Your task to perform on an android device: clear all cookies in the chrome app Image 0: 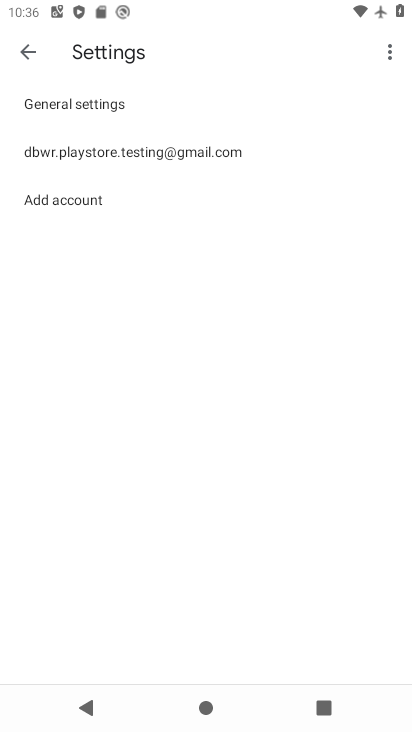
Step 0: press home button
Your task to perform on an android device: clear all cookies in the chrome app Image 1: 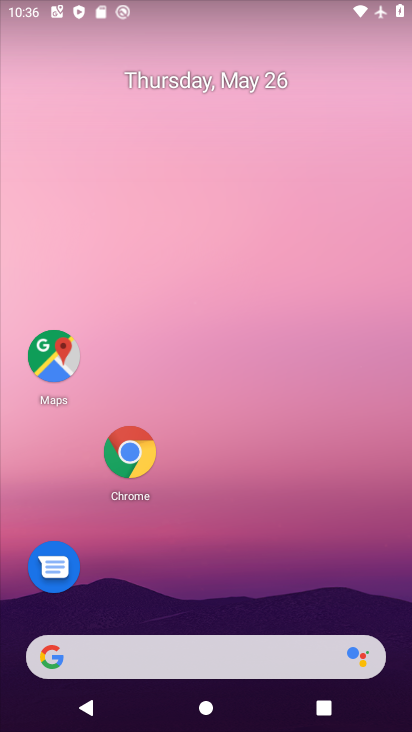
Step 1: click (123, 456)
Your task to perform on an android device: clear all cookies in the chrome app Image 2: 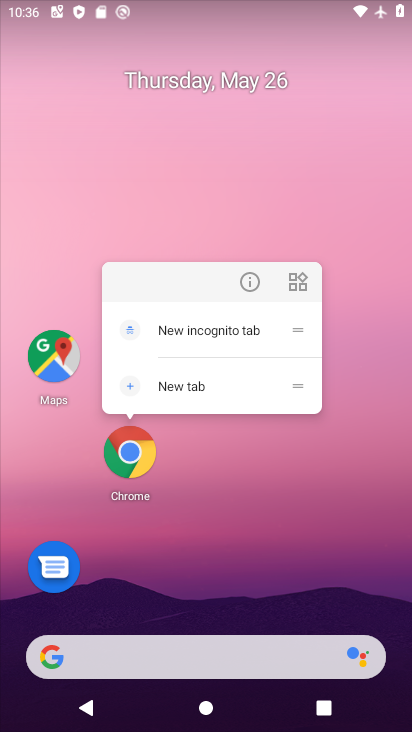
Step 2: click (144, 460)
Your task to perform on an android device: clear all cookies in the chrome app Image 3: 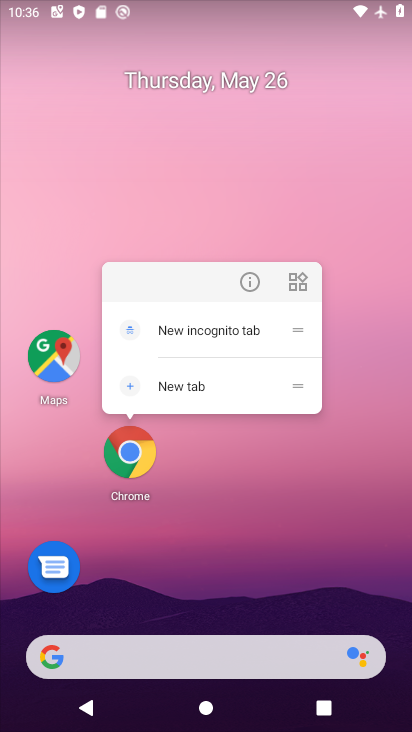
Step 3: click (132, 466)
Your task to perform on an android device: clear all cookies in the chrome app Image 4: 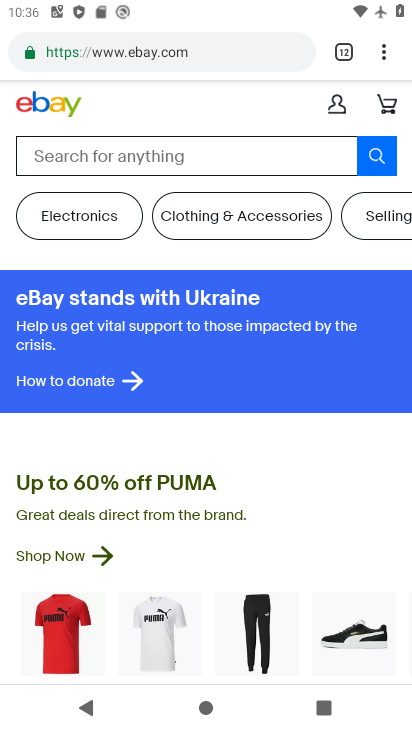
Step 4: drag from (381, 54) to (250, 606)
Your task to perform on an android device: clear all cookies in the chrome app Image 5: 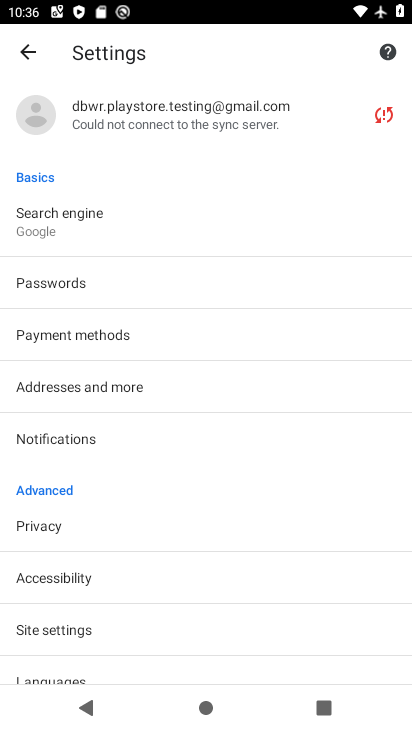
Step 5: click (47, 530)
Your task to perform on an android device: clear all cookies in the chrome app Image 6: 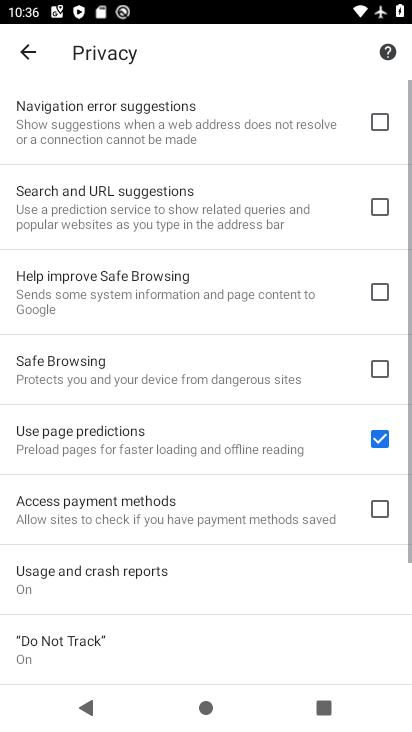
Step 6: drag from (200, 626) to (346, 174)
Your task to perform on an android device: clear all cookies in the chrome app Image 7: 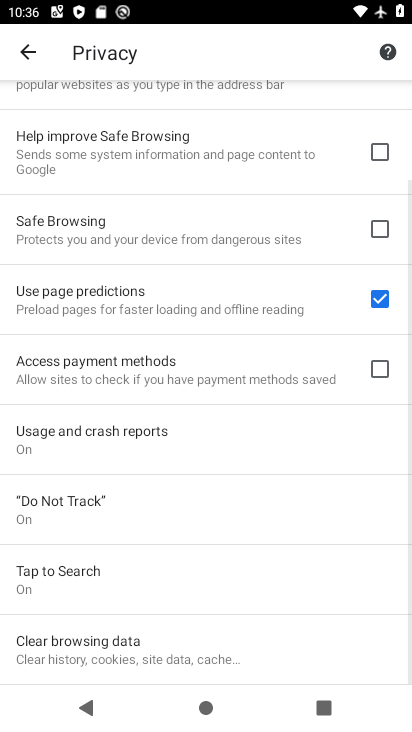
Step 7: click (151, 660)
Your task to perform on an android device: clear all cookies in the chrome app Image 8: 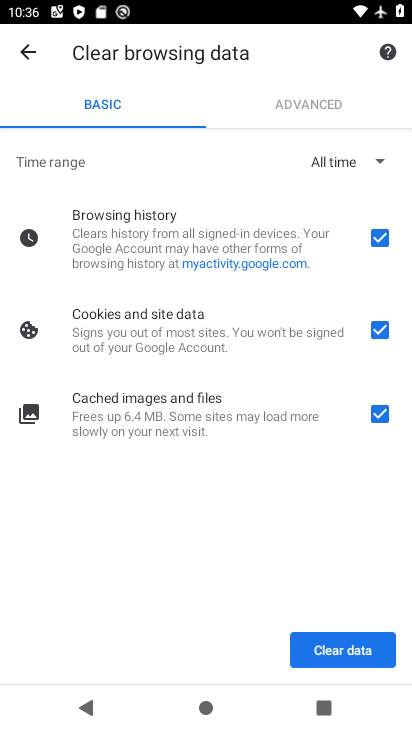
Step 8: click (377, 239)
Your task to perform on an android device: clear all cookies in the chrome app Image 9: 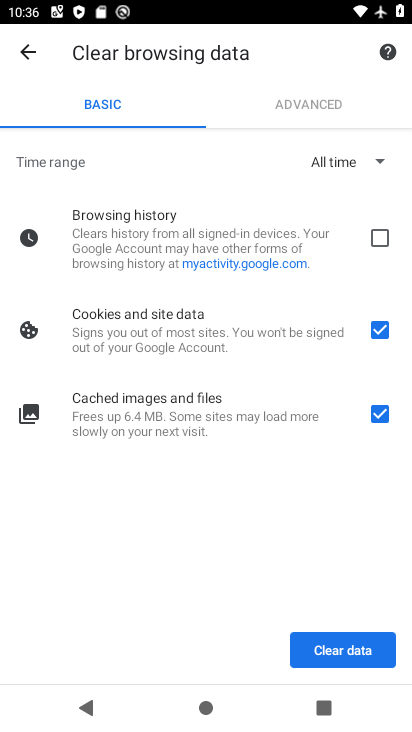
Step 9: click (378, 413)
Your task to perform on an android device: clear all cookies in the chrome app Image 10: 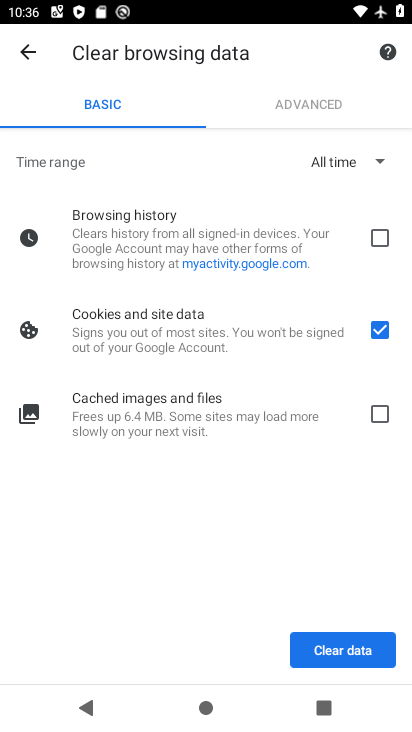
Step 10: click (348, 653)
Your task to perform on an android device: clear all cookies in the chrome app Image 11: 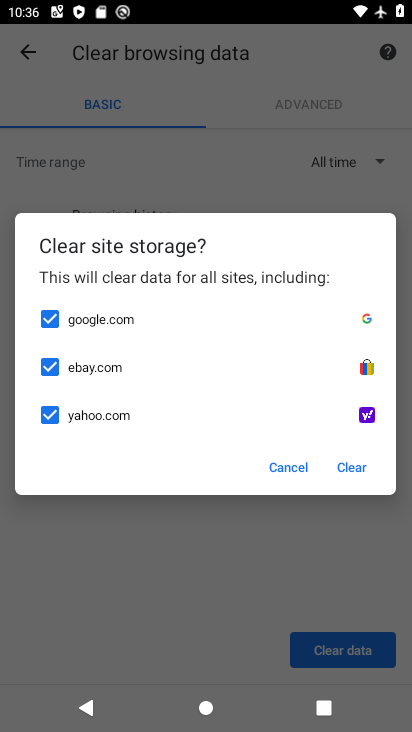
Step 11: click (351, 463)
Your task to perform on an android device: clear all cookies in the chrome app Image 12: 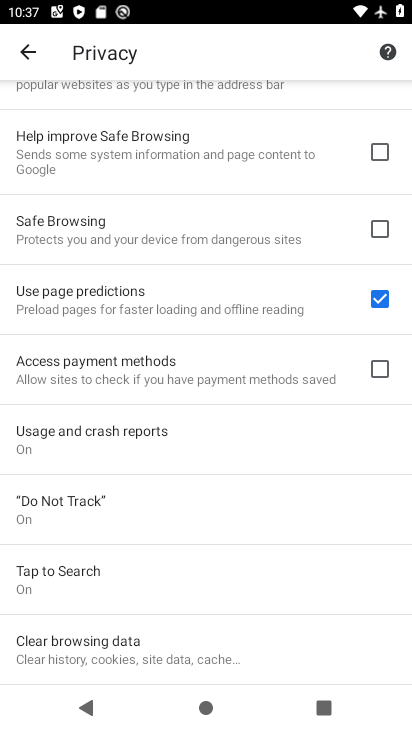
Step 12: task complete